Your task to perform on an android device: Turn on the flashlight Image 0: 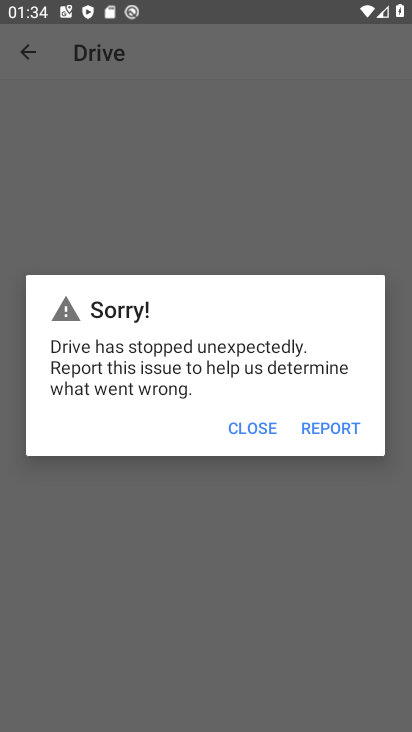
Step 0: press back button
Your task to perform on an android device: Turn on the flashlight Image 1: 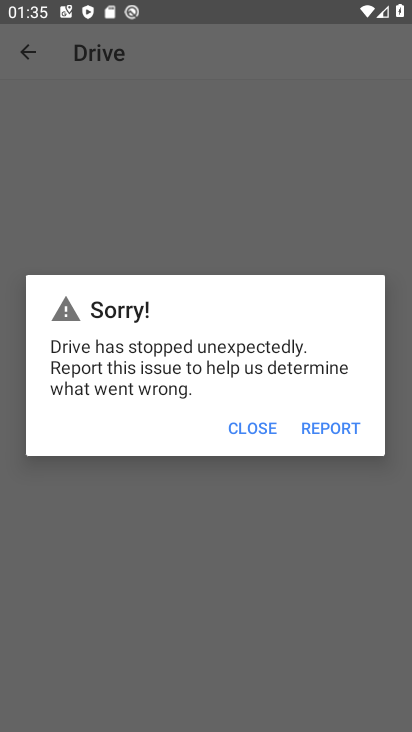
Step 1: press home button
Your task to perform on an android device: Turn on the flashlight Image 2: 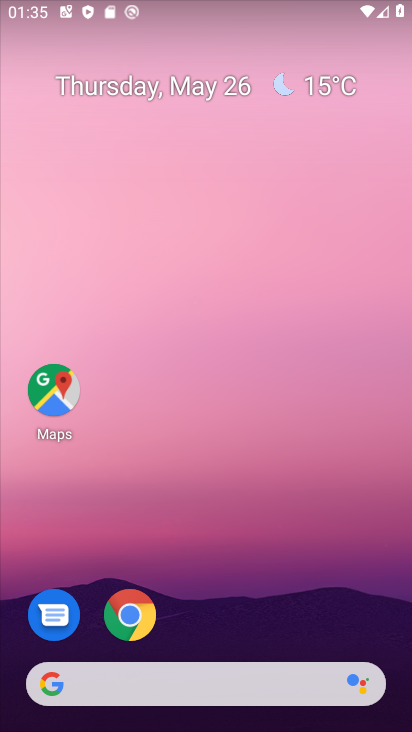
Step 2: drag from (234, 625) to (296, 36)
Your task to perform on an android device: Turn on the flashlight Image 3: 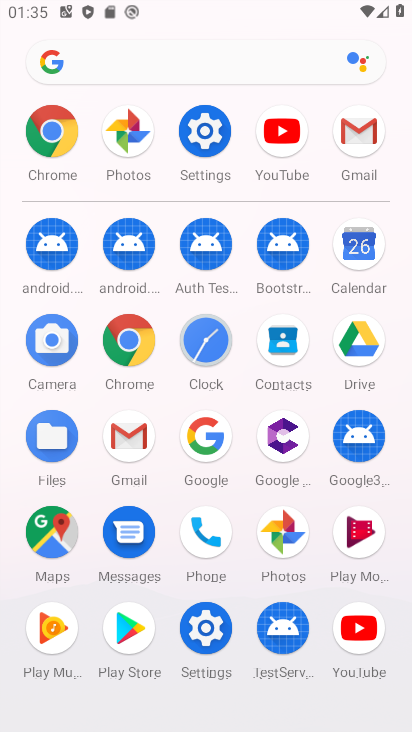
Step 3: click (200, 124)
Your task to perform on an android device: Turn on the flashlight Image 4: 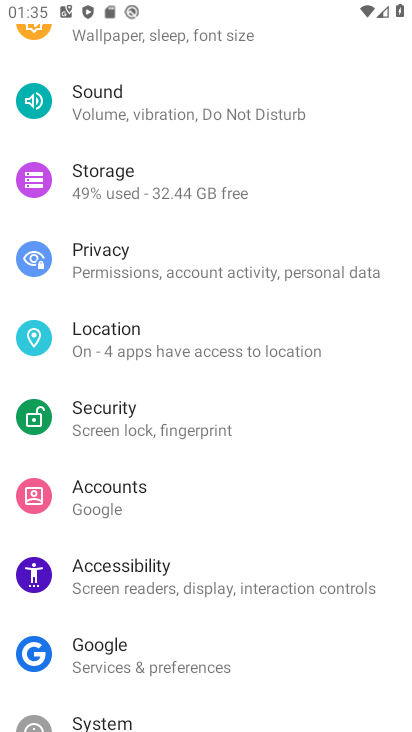
Step 4: drag from (135, 91) to (121, 673)
Your task to perform on an android device: Turn on the flashlight Image 5: 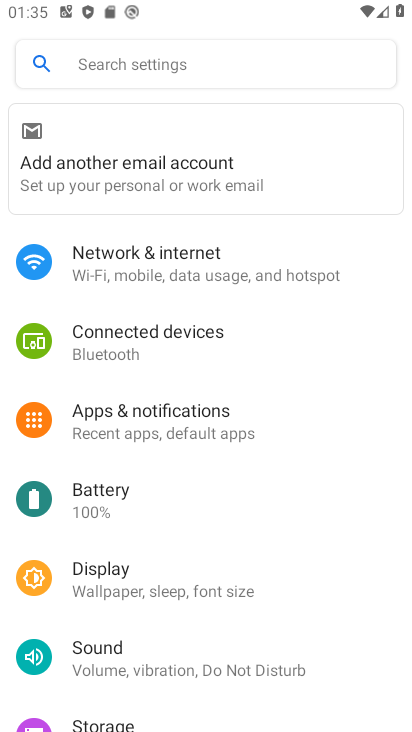
Step 5: click (133, 65)
Your task to perform on an android device: Turn on the flashlight Image 6: 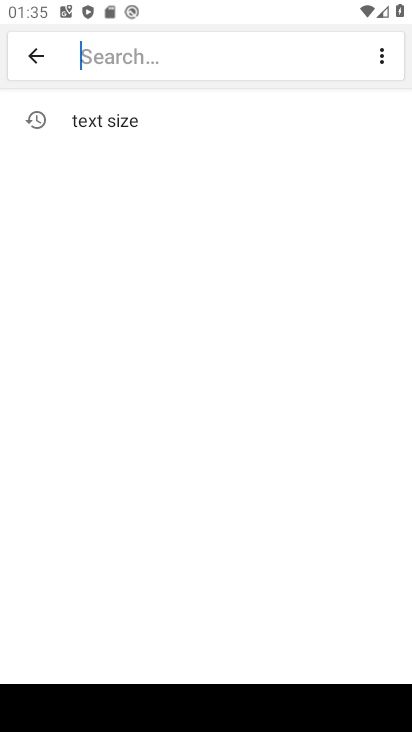
Step 6: type "flashlight"
Your task to perform on an android device: Turn on the flashlight Image 7: 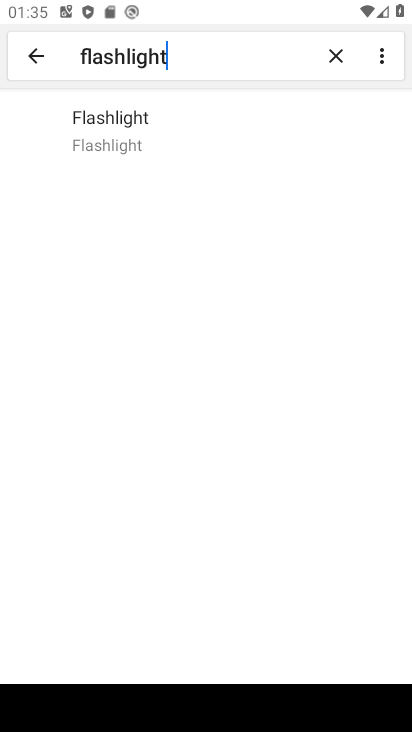
Step 7: click (175, 111)
Your task to perform on an android device: Turn on the flashlight Image 8: 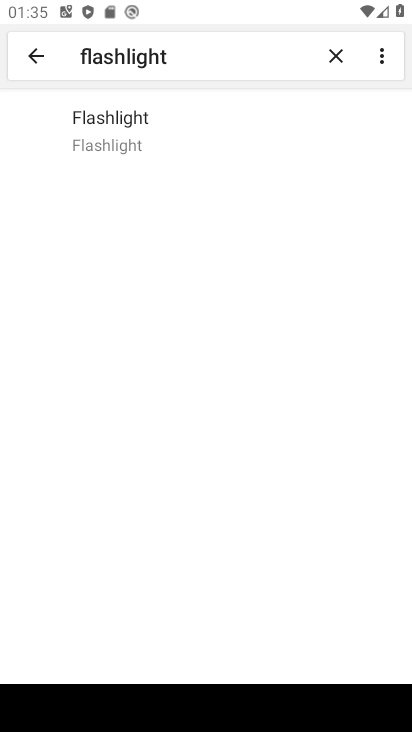
Step 8: click (154, 138)
Your task to perform on an android device: Turn on the flashlight Image 9: 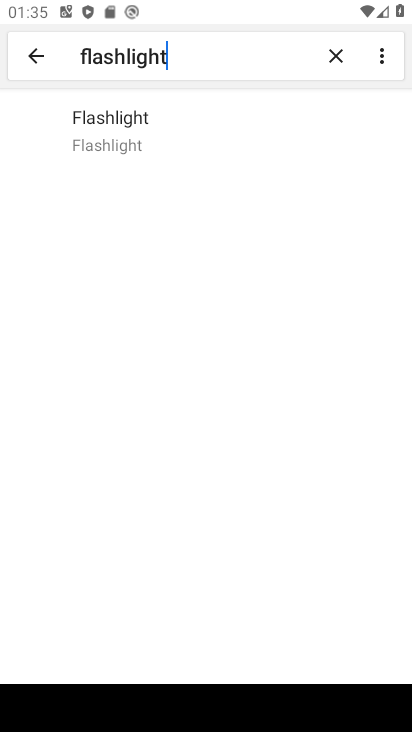
Step 9: click (152, 138)
Your task to perform on an android device: Turn on the flashlight Image 10: 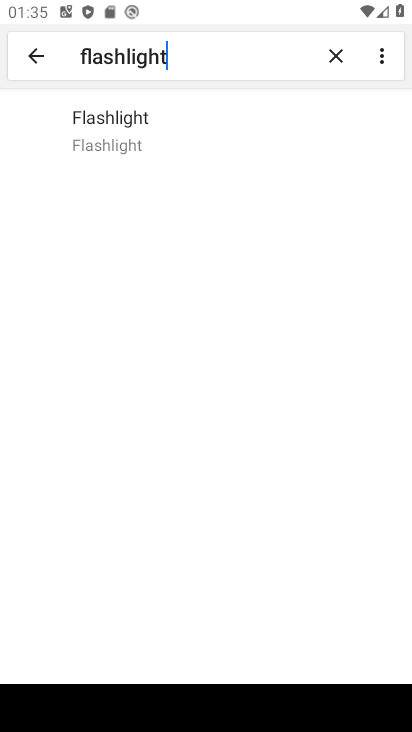
Step 10: task complete